Your task to perform on an android device: turn off priority inbox in the gmail app Image 0: 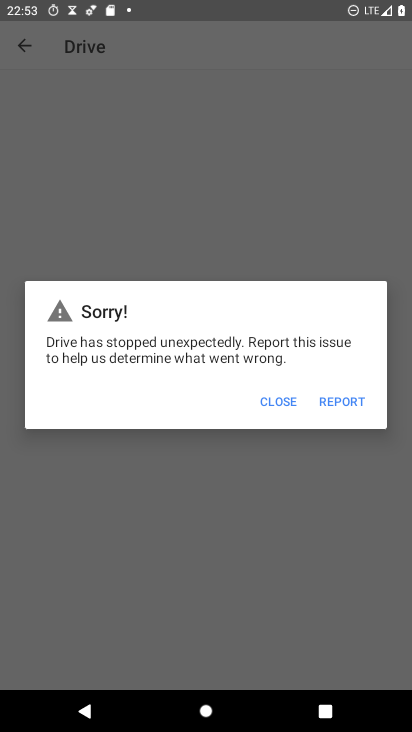
Step 0: press back button
Your task to perform on an android device: turn off priority inbox in the gmail app Image 1: 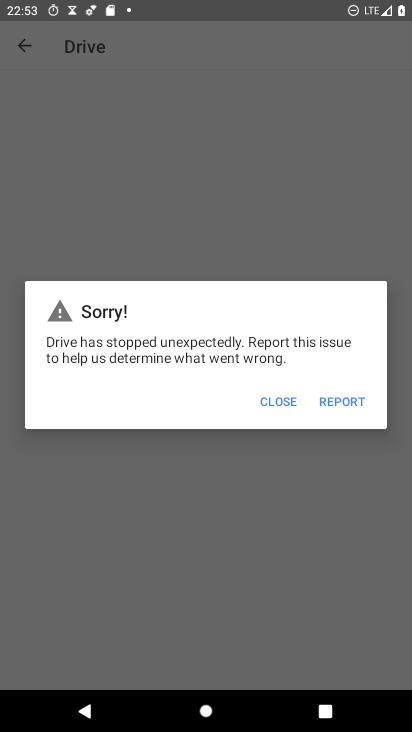
Step 1: press back button
Your task to perform on an android device: turn off priority inbox in the gmail app Image 2: 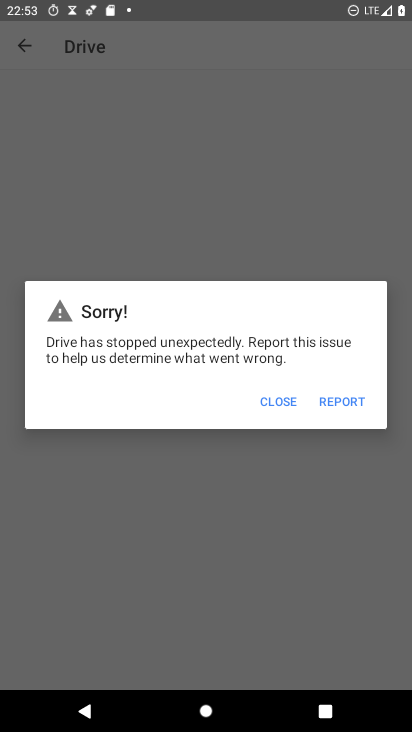
Step 2: press home button
Your task to perform on an android device: turn off priority inbox in the gmail app Image 3: 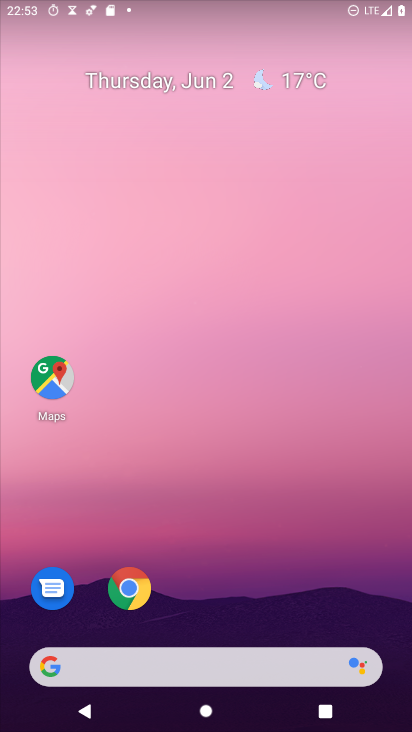
Step 3: drag from (262, 437) to (326, 6)
Your task to perform on an android device: turn off priority inbox in the gmail app Image 4: 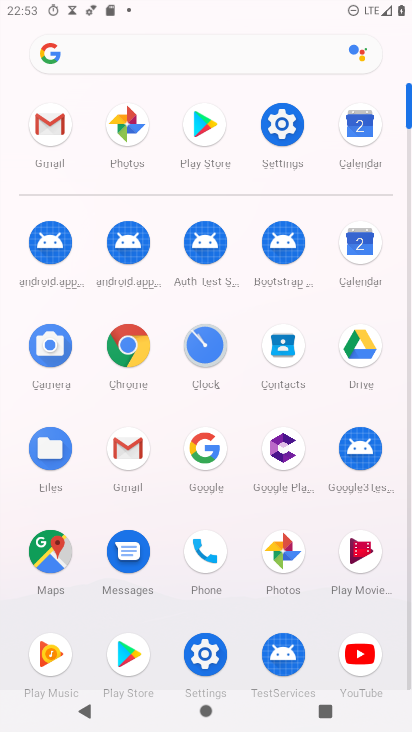
Step 4: click (55, 118)
Your task to perform on an android device: turn off priority inbox in the gmail app Image 5: 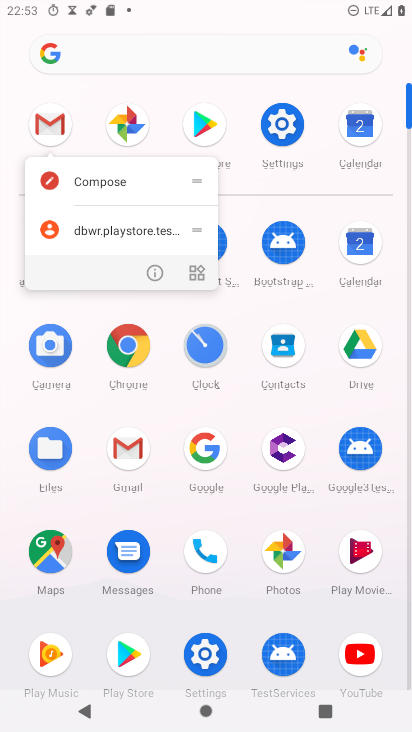
Step 5: click (45, 114)
Your task to perform on an android device: turn off priority inbox in the gmail app Image 6: 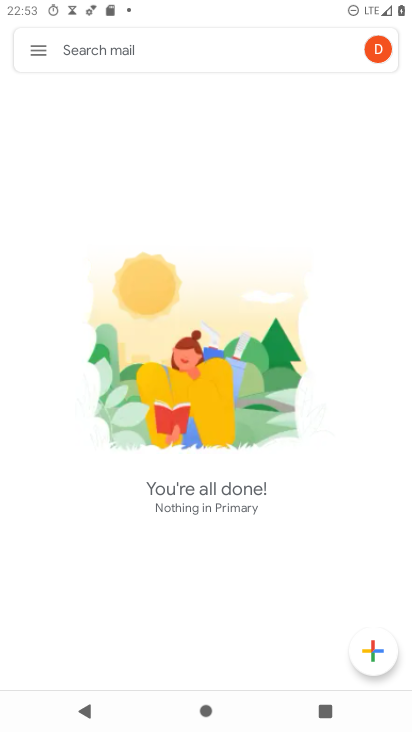
Step 6: click (26, 45)
Your task to perform on an android device: turn off priority inbox in the gmail app Image 7: 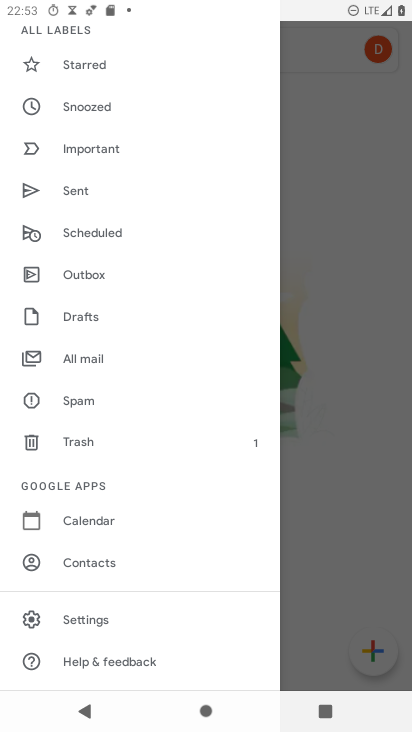
Step 7: click (104, 619)
Your task to perform on an android device: turn off priority inbox in the gmail app Image 8: 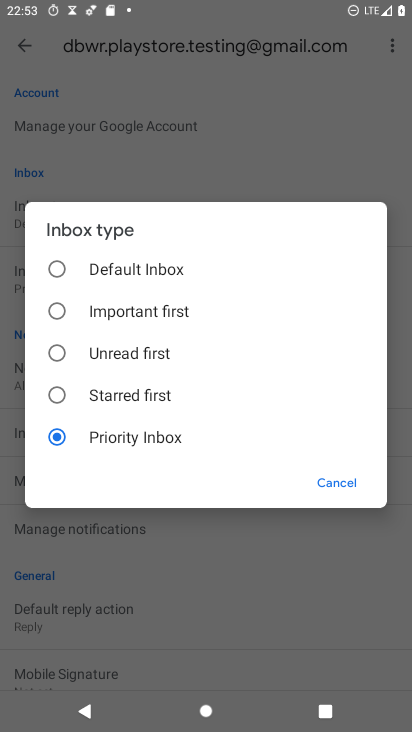
Step 8: click (56, 260)
Your task to perform on an android device: turn off priority inbox in the gmail app Image 9: 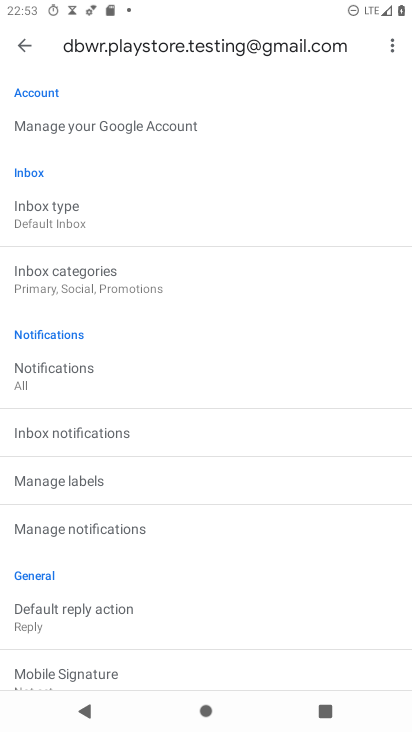
Step 9: task complete